Your task to perform on an android device: all mails in gmail Image 0: 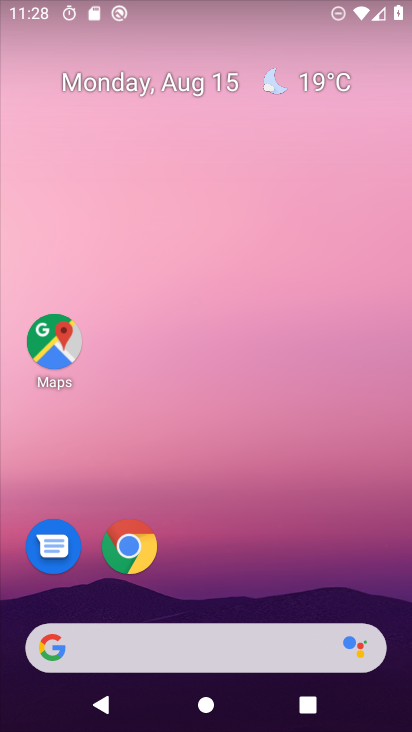
Step 0: drag from (213, 608) to (190, 110)
Your task to perform on an android device: all mails in gmail Image 1: 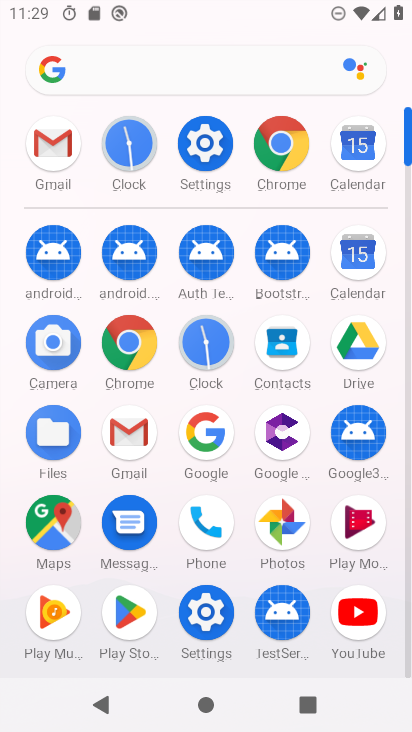
Step 1: click (115, 433)
Your task to perform on an android device: all mails in gmail Image 2: 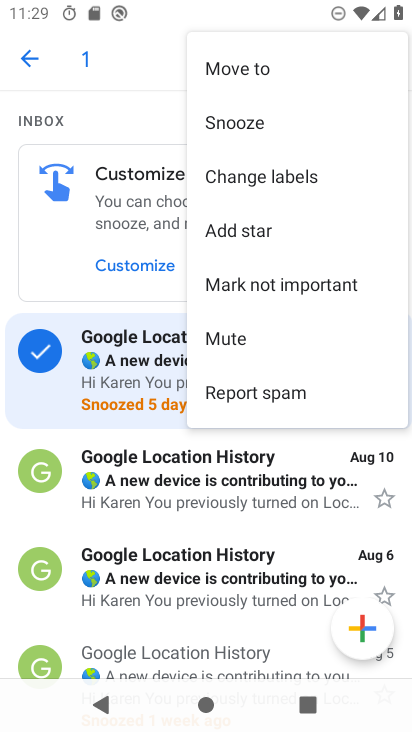
Step 2: click (18, 54)
Your task to perform on an android device: all mails in gmail Image 3: 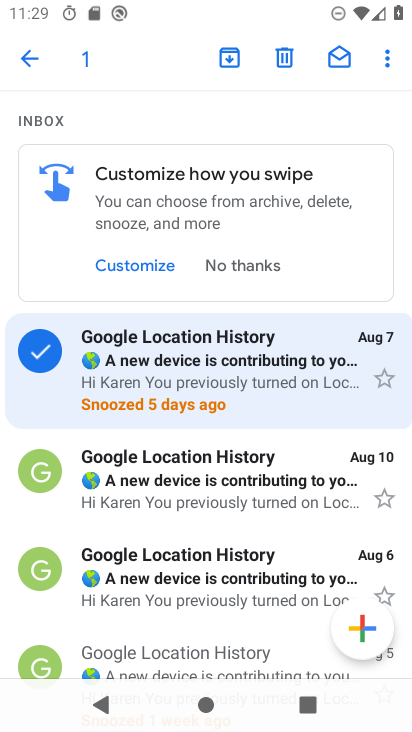
Step 3: click (28, 54)
Your task to perform on an android device: all mails in gmail Image 4: 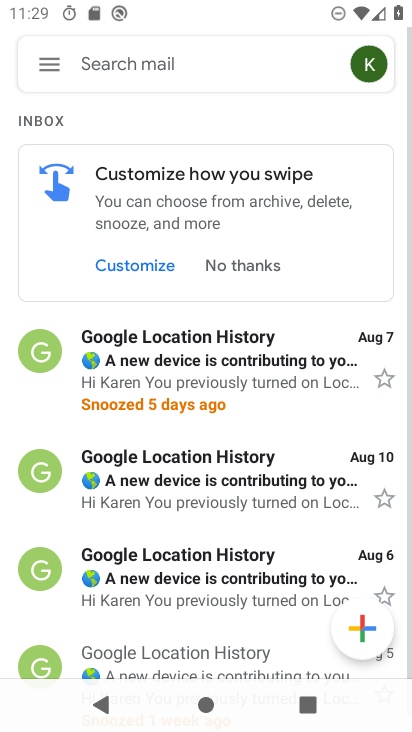
Step 4: click (55, 61)
Your task to perform on an android device: all mails in gmail Image 5: 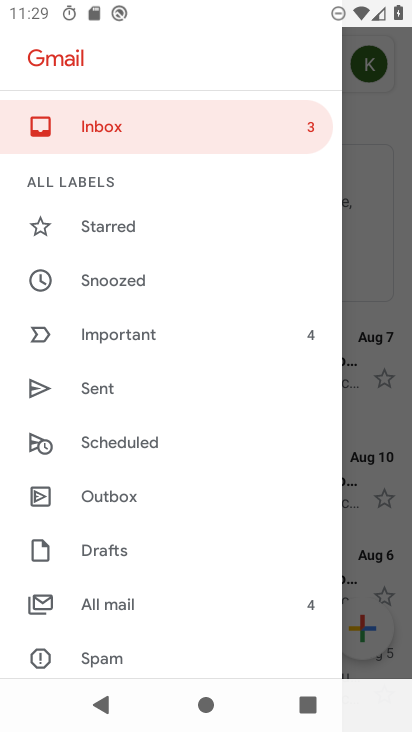
Step 5: click (112, 601)
Your task to perform on an android device: all mails in gmail Image 6: 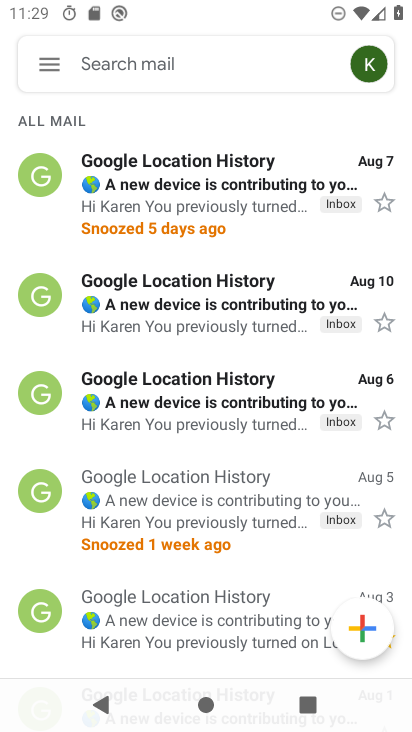
Step 6: task complete